Your task to perform on an android device: add a contact in the contacts app Image 0: 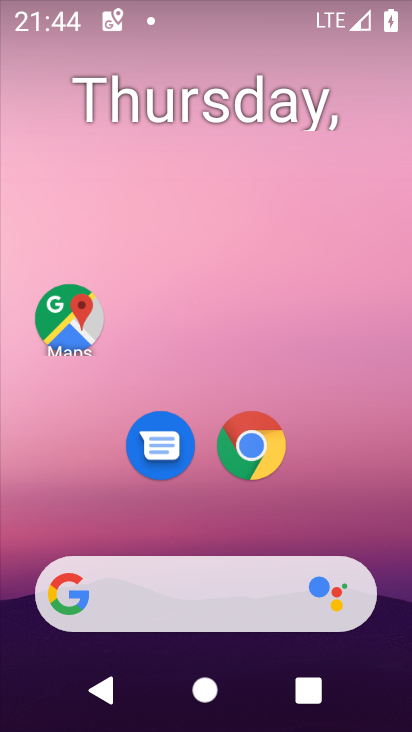
Step 0: click (363, 39)
Your task to perform on an android device: add a contact in the contacts app Image 1: 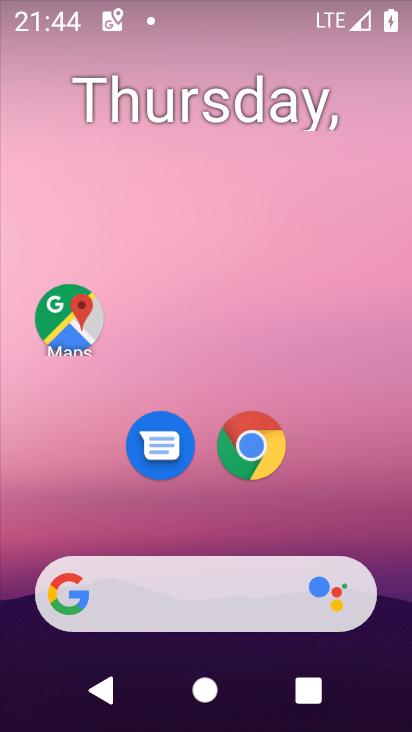
Step 1: drag from (196, 529) to (201, 76)
Your task to perform on an android device: add a contact in the contacts app Image 2: 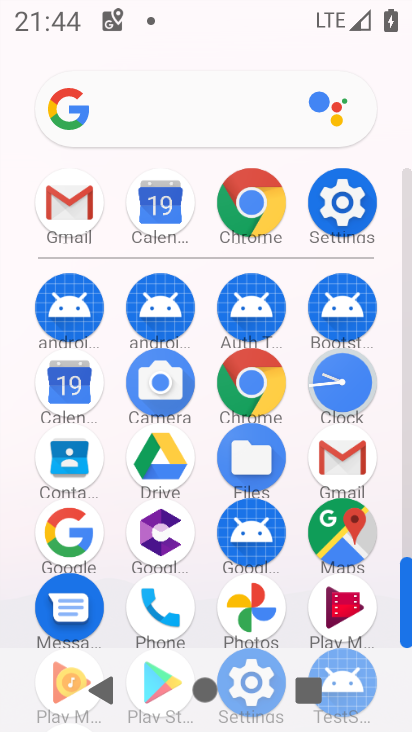
Step 2: click (65, 458)
Your task to perform on an android device: add a contact in the contacts app Image 3: 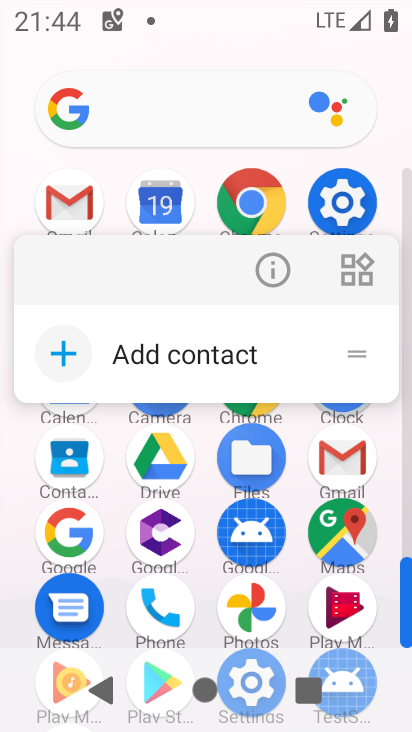
Step 3: click (274, 264)
Your task to perform on an android device: add a contact in the contacts app Image 4: 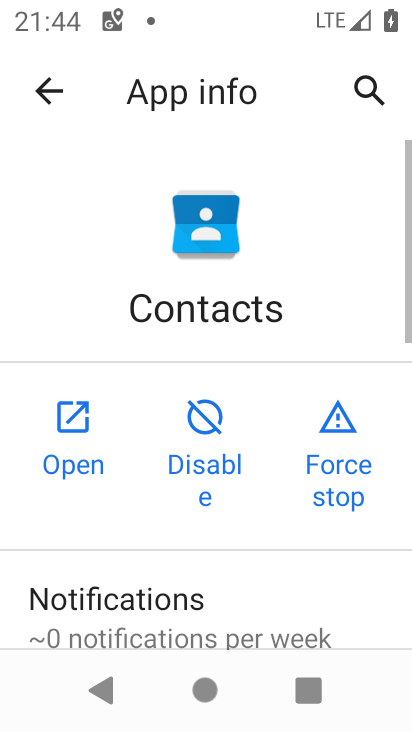
Step 4: click (79, 431)
Your task to perform on an android device: add a contact in the contacts app Image 5: 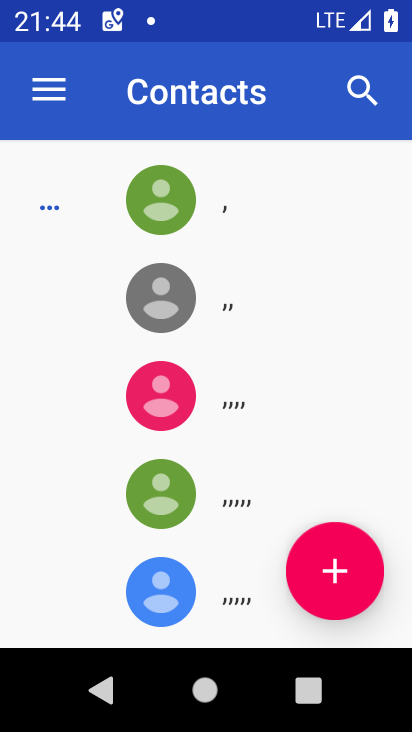
Step 5: drag from (195, 502) to (281, 166)
Your task to perform on an android device: add a contact in the contacts app Image 6: 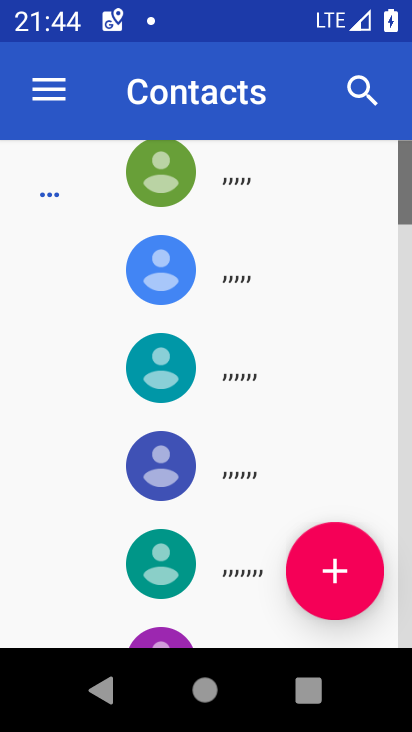
Step 6: drag from (264, 166) to (302, 728)
Your task to perform on an android device: add a contact in the contacts app Image 7: 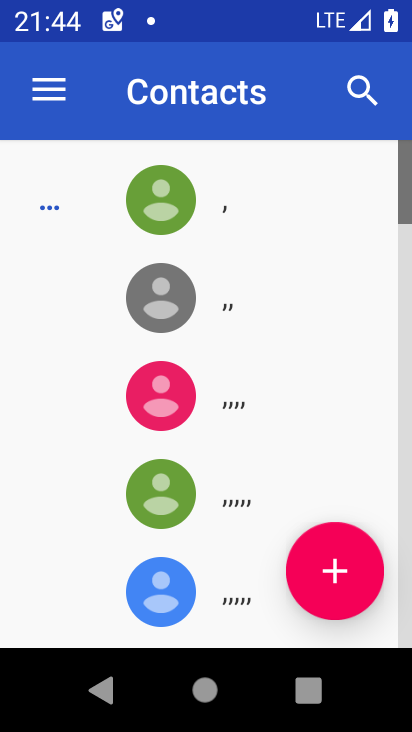
Step 7: click (53, 76)
Your task to perform on an android device: add a contact in the contacts app Image 8: 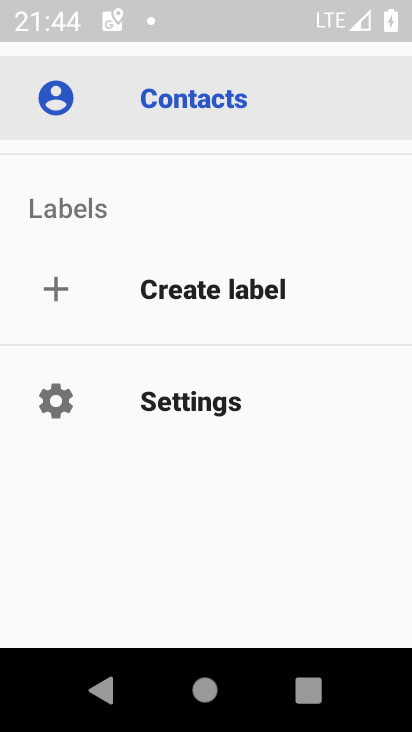
Step 8: drag from (238, 458) to (278, 222)
Your task to perform on an android device: add a contact in the contacts app Image 9: 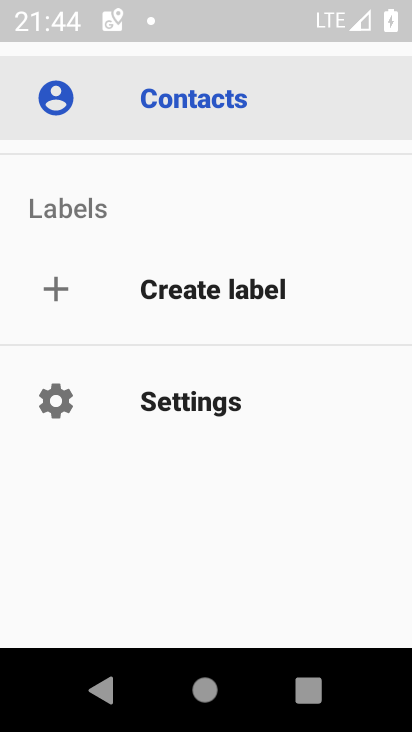
Step 9: press back button
Your task to perform on an android device: add a contact in the contacts app Image 10: 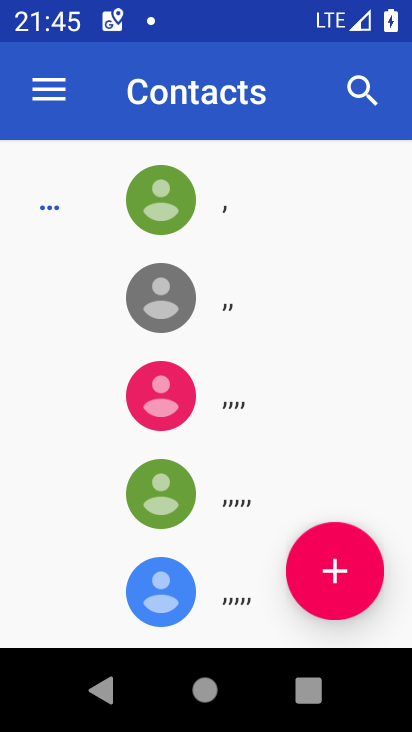
Step 10: click (319, 533)
Your task to perform on an android device: add a contact in the contacts app Image 11: 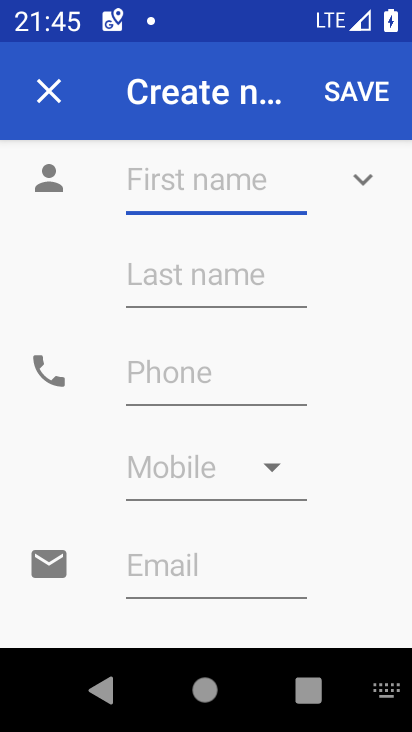
Step 11: type "contact"
Your task to perform on an android device: add a contact in the contacts app Image 12: 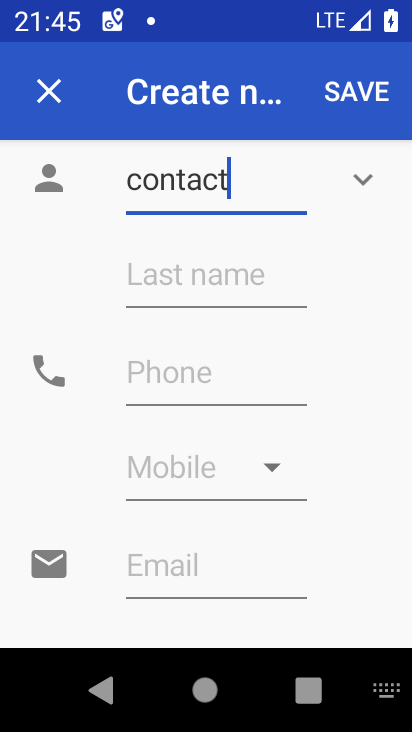
Step 12: type ""
Your task to perform on an android device: add a contact in the contacts app Image 13: 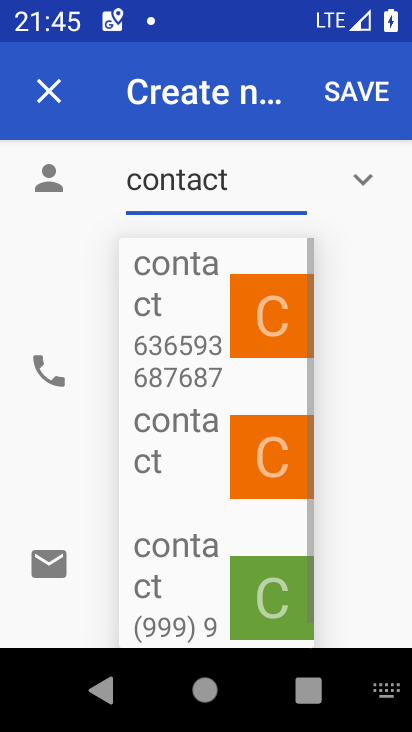
Step 13: click (349, 98)
Your task to perform on an android device: add a contact in the contacts app Image 14: 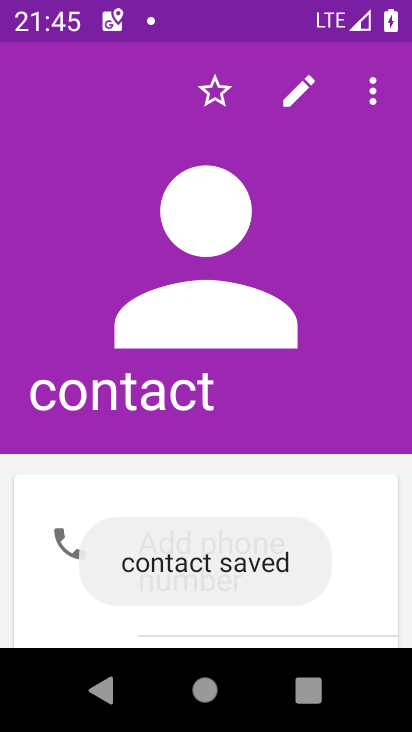
Step 14: task complete